Your task to perform on an android device: Set the phone to "Do not disturb". Image 0: 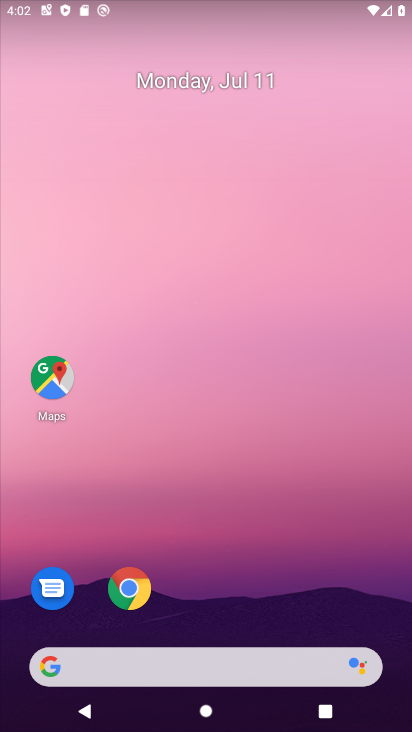
Step 0: drag from (223, 0) to (234, 656)
Your task to perform on an android device: Set the phone to "Do not disturb". Image 1: 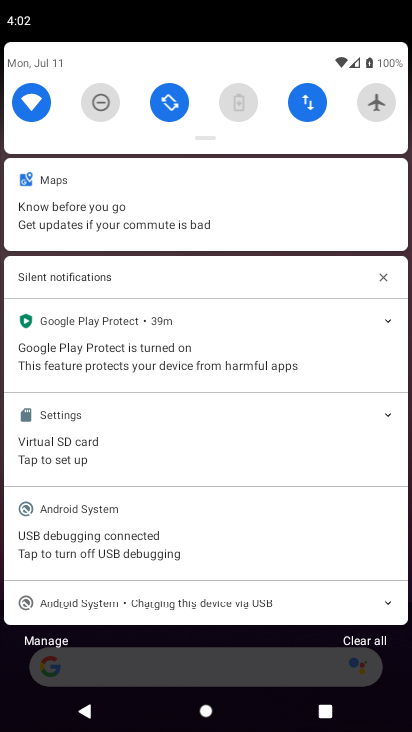
Step 1: drag from (202, 144) to (185, 703)
Your task to perform on an android device: Set the phone to "Do not disturb". Image 2: 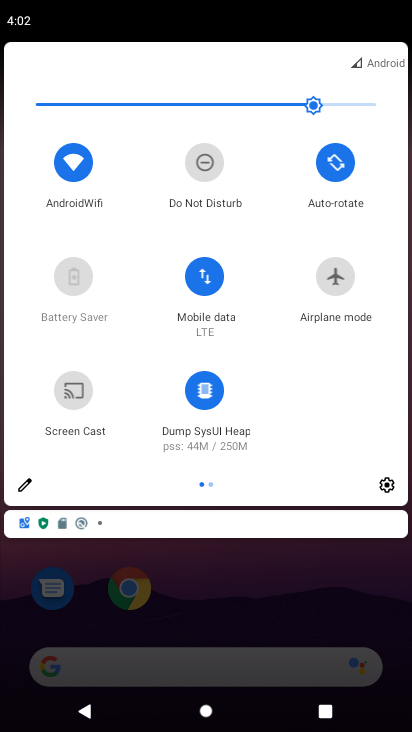
Step 2: click (208, 160)
Your task to perform on an android device: Set the phone to "Do not disturb". Image 3: 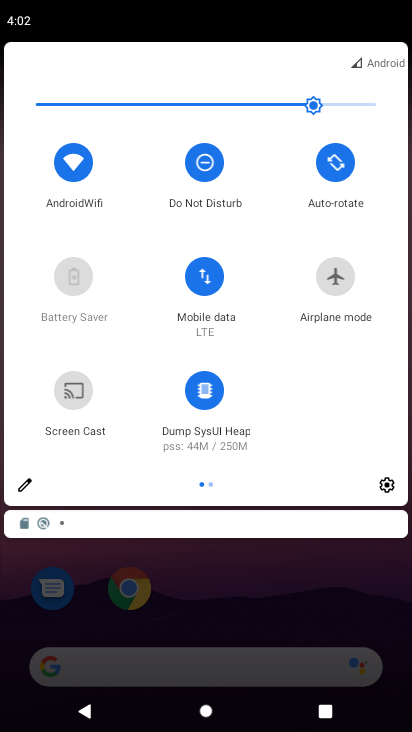
Step 3: task complete